Your task to perform on an android device: Open Google Maps Image 0: 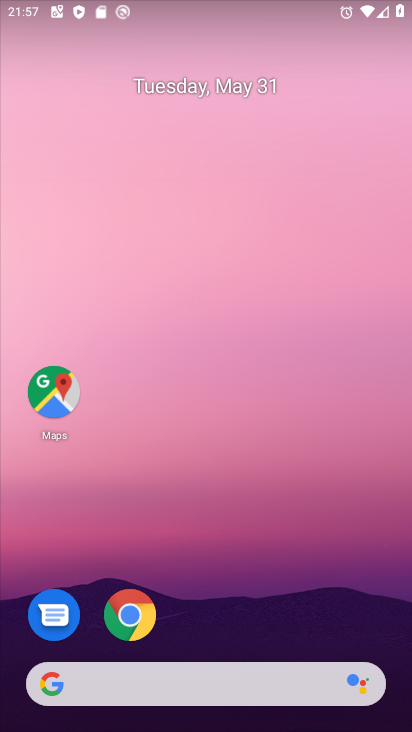
Step 0: click (71, 398)
Your task to perform on an android device: Open Google Maps Image 1: 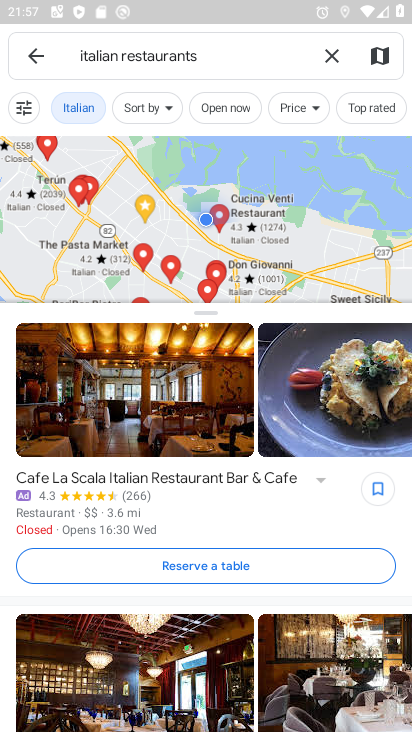
Step 1: task complete